Your task to perform on an android device: Search for bose quietcomfort 35 on amazon.com, select the first entry, and add it to the cart. Image 0: 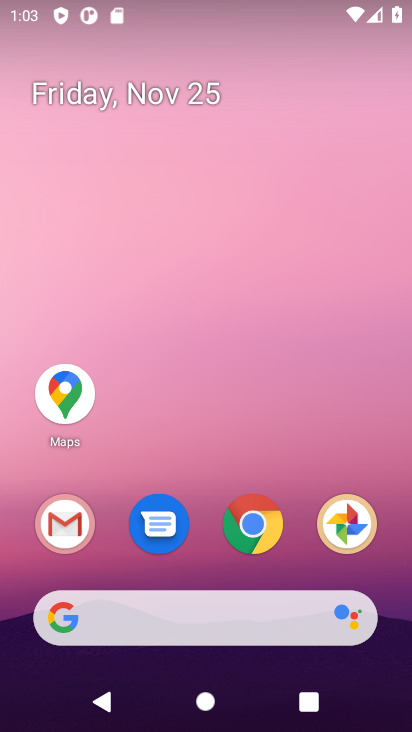
Step 0: click (259, 536)
Your task to perform on an android device: Search for bose quietcomfort 35 on amazon.com, select the first entry, and add it to the cart. Image 1: 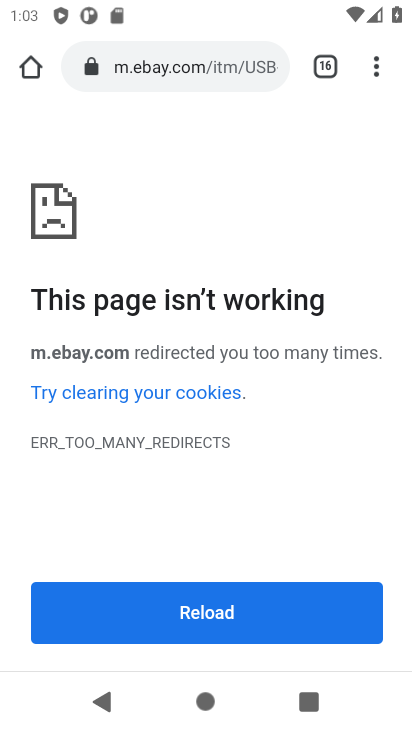
Step 1: click (170, 64)
Your task to perform on an android device: Search for bose quietcomfort 35 on amazon.com, select the first entry, and add it to the cart. Image 2: 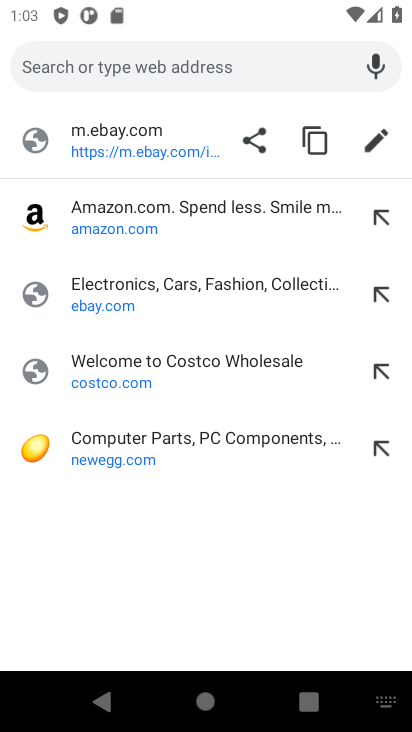
Step 2: click (115, 216)
Your task to perform on an android device: Search for bose quietcomfort 35 on amazon.com, select the first entry, and add it to the cart. Image 3: 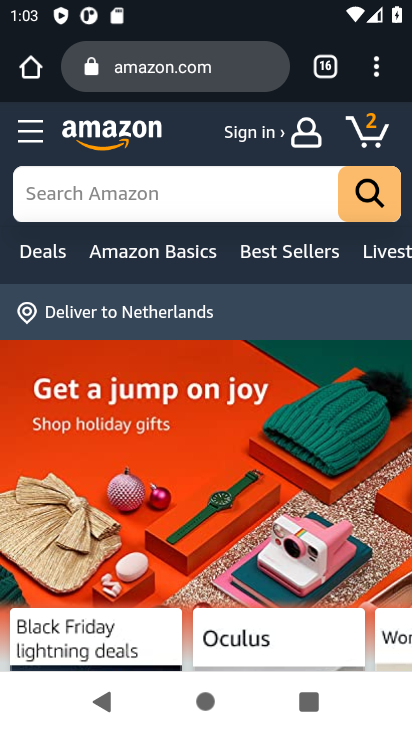
Step 3: click (100, 201)
Your task to perform on an android device: Search for bose quietcomfort 35 on amazon.com, select the first entry, and add it to the cart. Image 4: 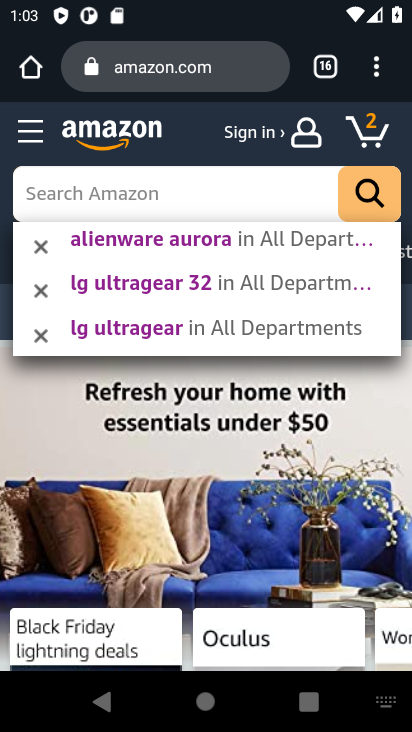
Step 4: type "bose quietcomfort 35 "
Your task to perform on an android device: Search for bose quietcomfort 35 on amazon.com, select the first entry, and add it to the cart. Image 5: 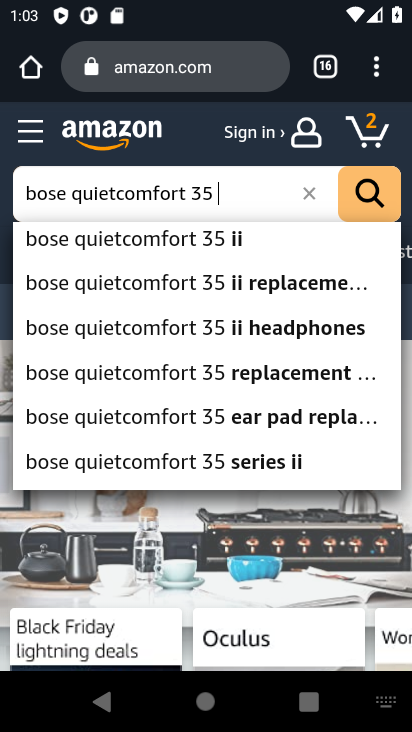
Step 5: click (368, 198)
Your task to perform on an android device: Search for bose quietcomfort 35 on amazon.com, select the first entry, and add it to the cart. Image 6: 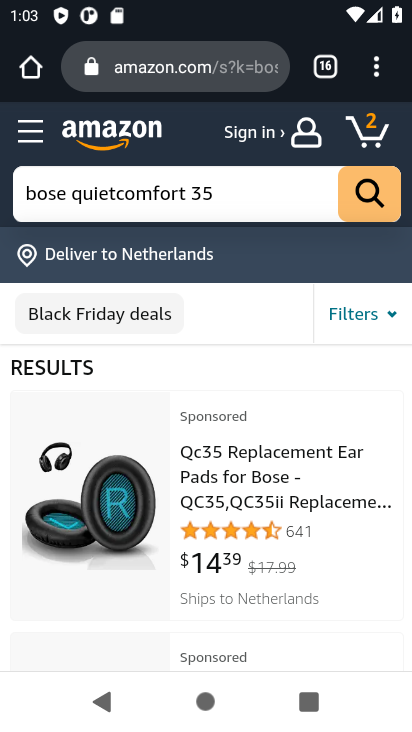
Step 6: drag from (159, 492) to (186, 353)
Your task to perform on an android device: Search for bose quietcomfort 35 on amazon.com, select the first entry, and add it to the cart. Image 7: 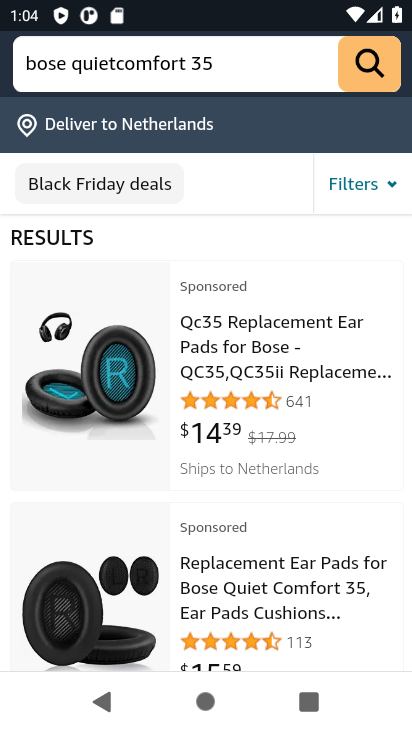
Step 7: click (145, 397)
Your task to perform on an android device: Search for bose quietcomfort 35 on amazon.com, select the first entry, and add it to the cart. Image 8: 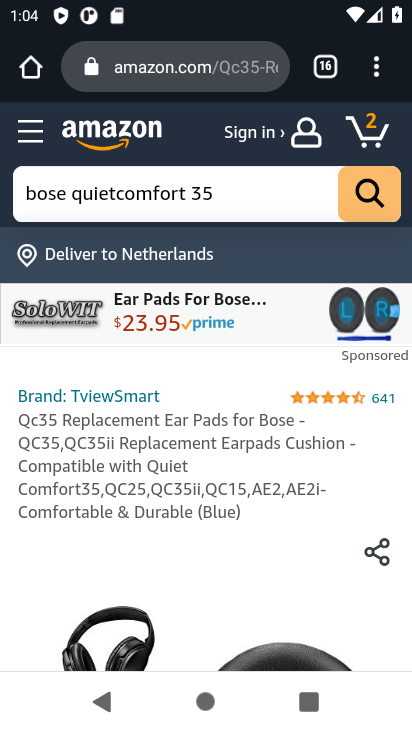
Step 8: task complete